Your task to perform on an android device: Open the phone app and click the voicemail tab. Image 0: 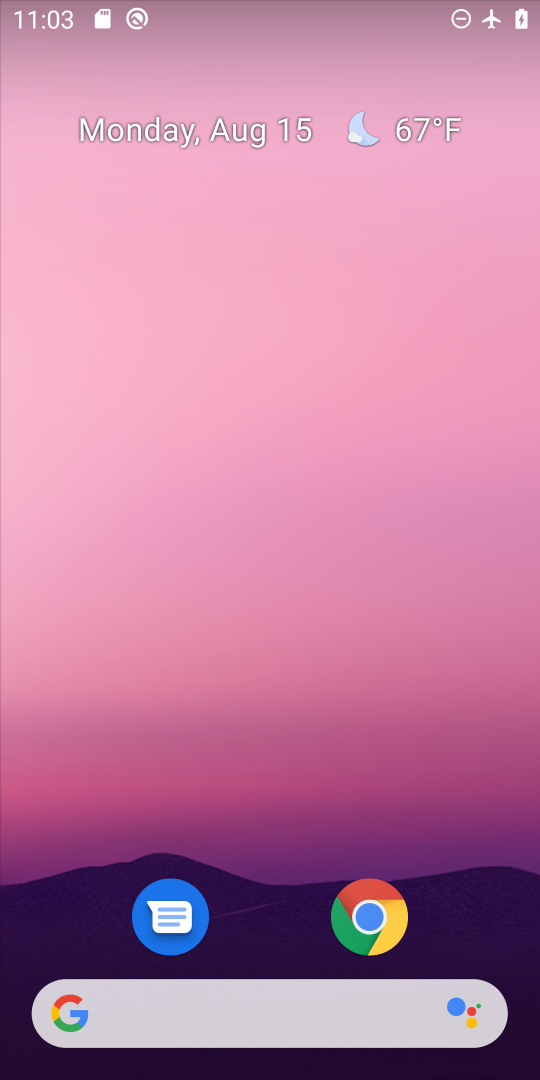
Step 0: drag from (281, 818) to (320, 0)
Your task to perform on an android device: Open the phone app and click the voicemail tab. Image 1: 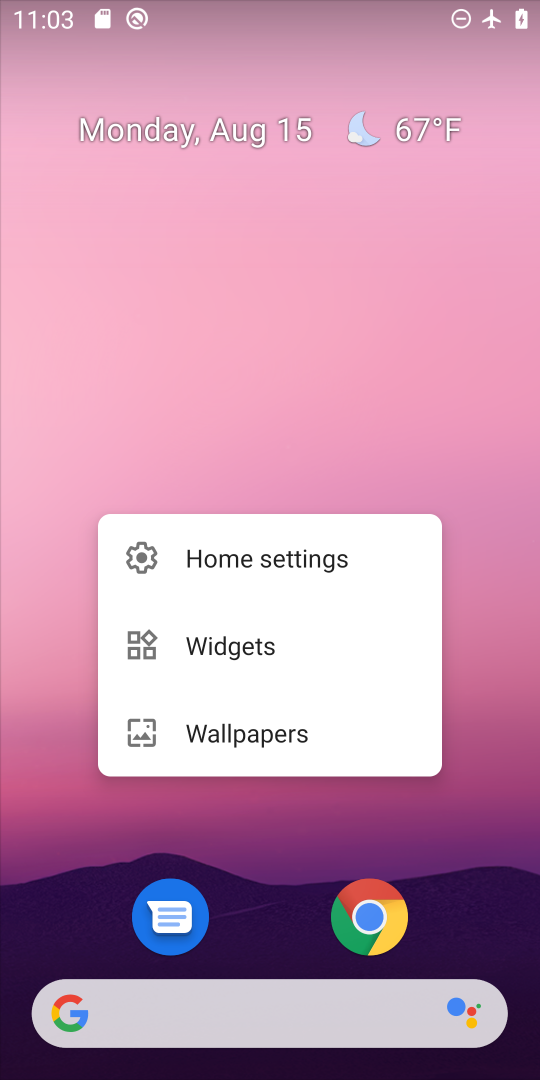
Step 1: click (437, 597)
Your task to perform on an android device: Open the phone app and click the voicemail tab. Image 2: 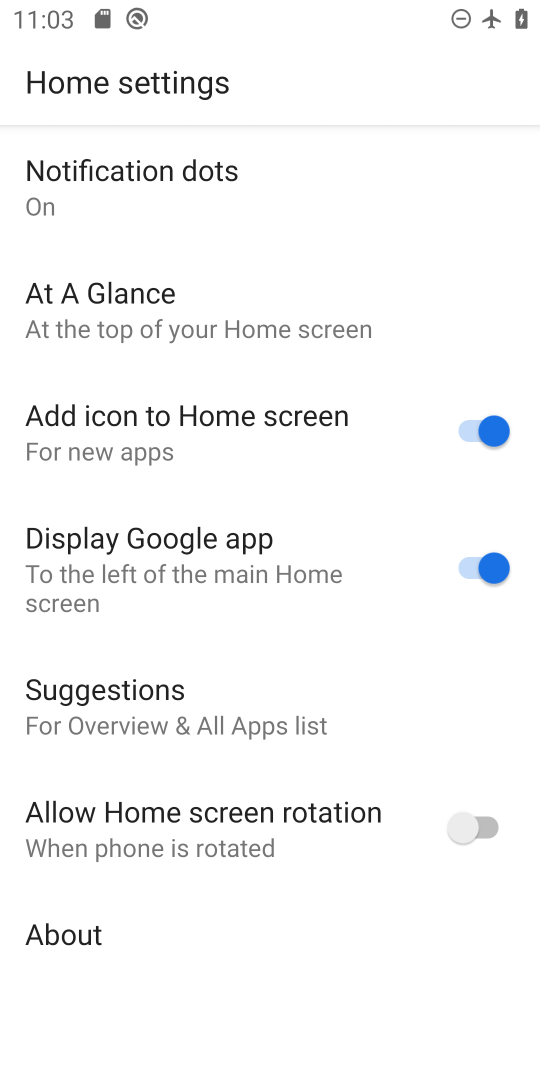
Step 2: press back button
Your task to perform on an android device: Open the phone app and click the voicemail tab. Image 3: 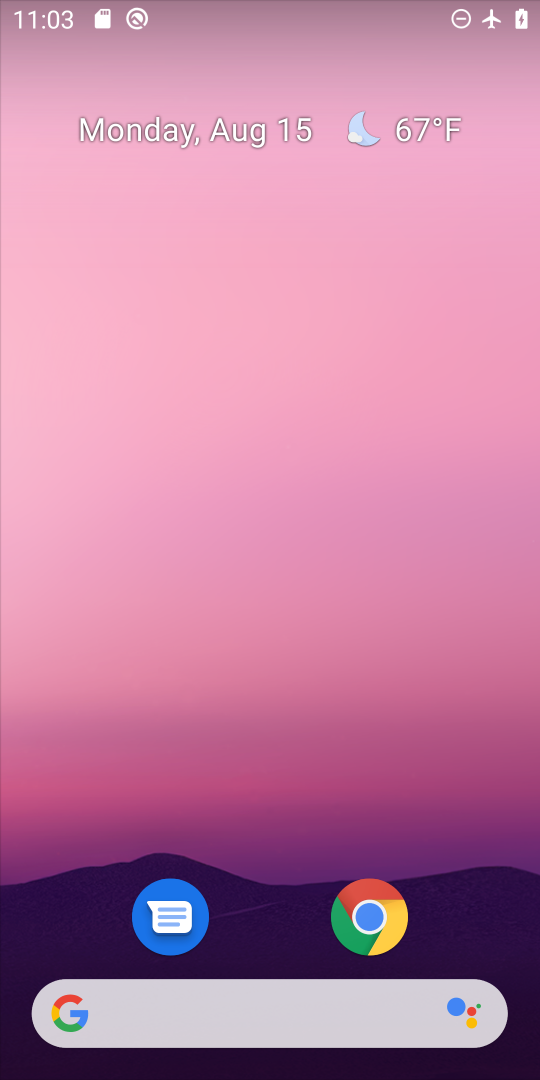
Step 3: drag from (271, 850) to (306, 0)
Your task to perform on an android device: Open the phone app and click the voicemail tab. Image 4: 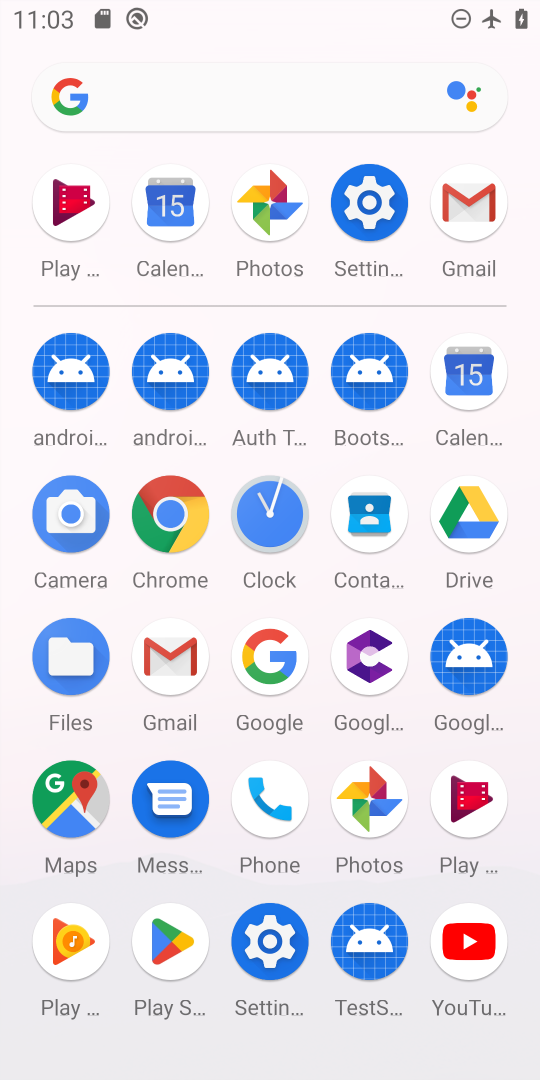
Step 4: click (276, 795)
Your task to perform on an android device: Open the phone app and click the voicemail tab. Image 5: 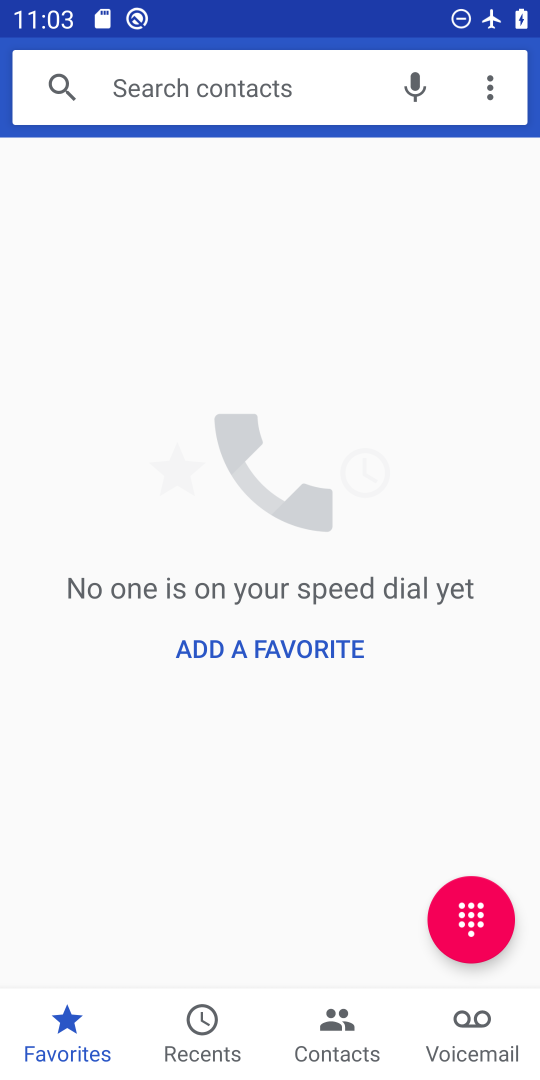
Step 5: click (486, 1032)
Your task to perform on an android device: Open the phone app and click the voicemail tab. Image 6: 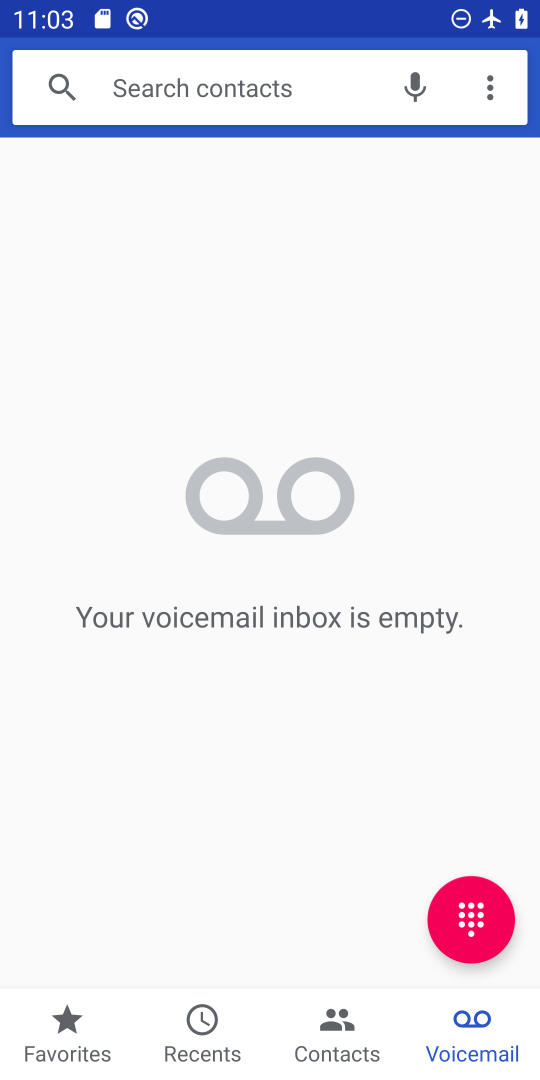
Step 6: task complete